Your task to perform on an android device: toggle sleep mode Image 0: 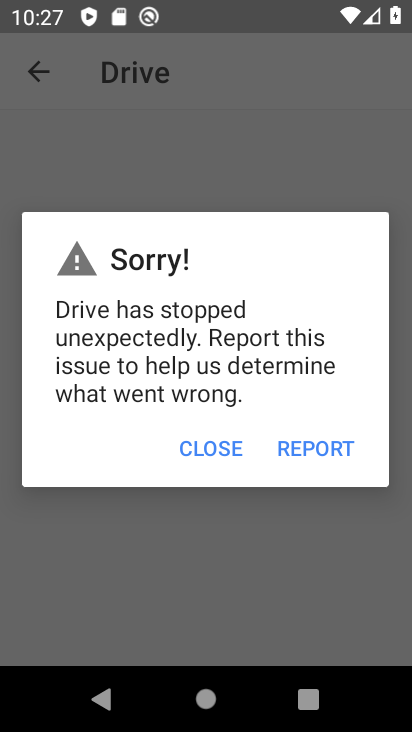
Step 0: press home button
Your task to perform on an android device: toggle sleep mode Image 1: 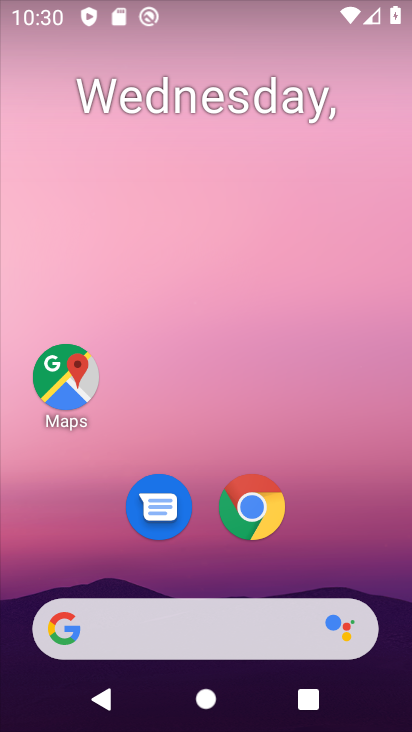
Step 1: drag from (272, 665) to (270, 173)
Your task to perform on an android device: toggle sleep mode Image 2: 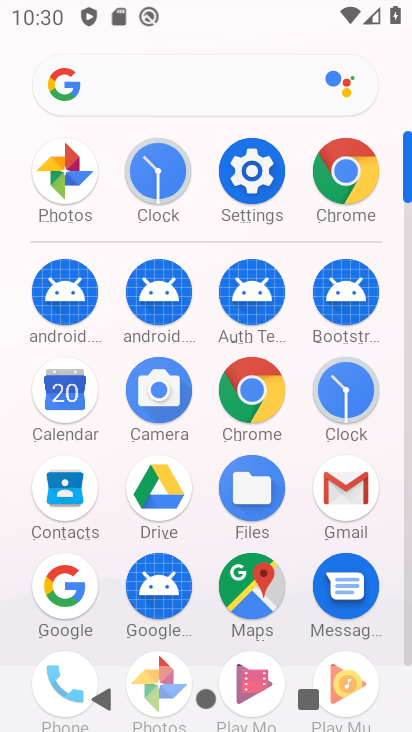
Step 2: click (237, 177)
Your task to perform on an android device: toggle sleep mode Image 3: 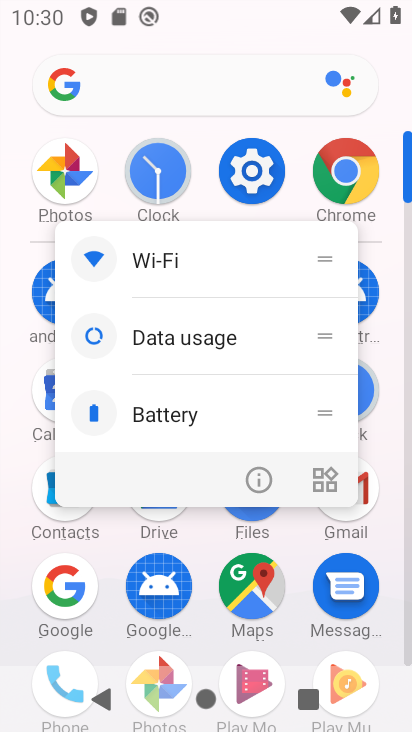
Step 3: click (232, 198)
Your task to perform on an android device: toggle sleep mode Image 4: 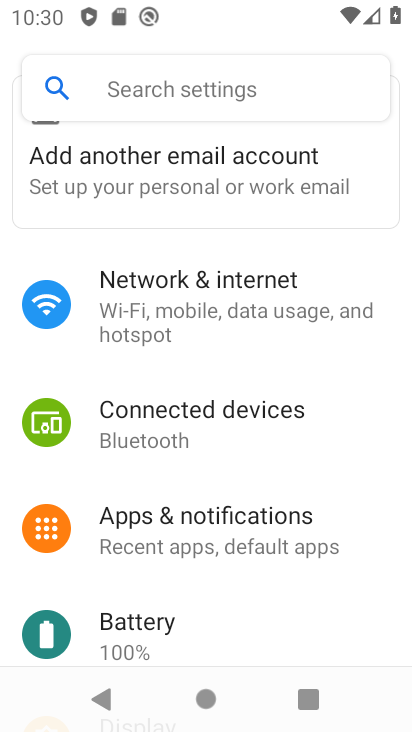
Step 4: click (159, 81)
Your task to perform on an android device: toggle sleep mode Image 5: 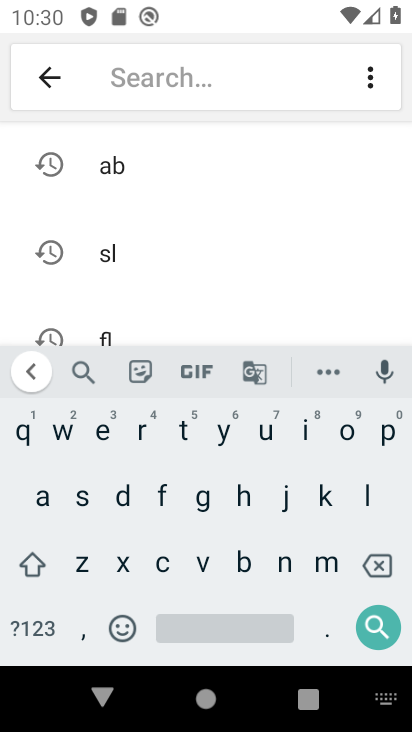
Step 5: click (160, 261)
Your task to perform on an android device: toggle sleep mode Image 6: 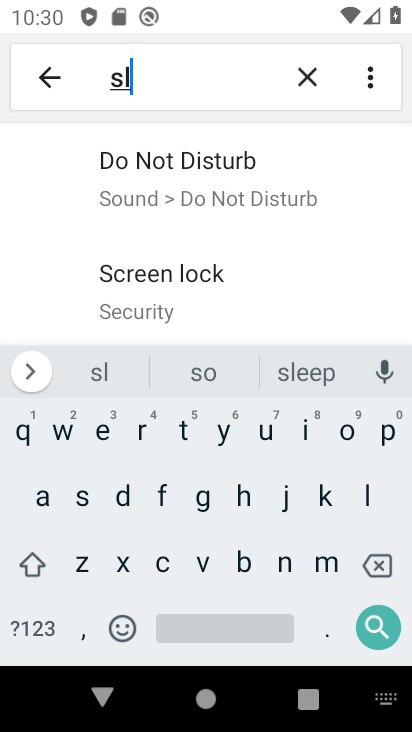
Step 6: click (170, 188)
Your task to perform on an android device: toggle sleep mode Image 7: 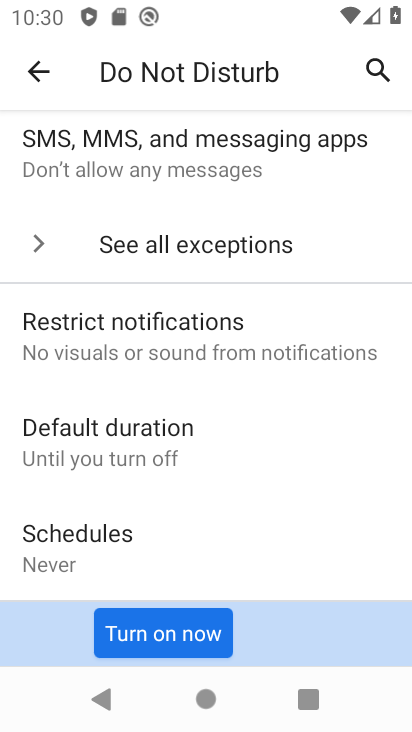
Step 7: task complete